Your task to perform on an android device: change the clock style Image 0: 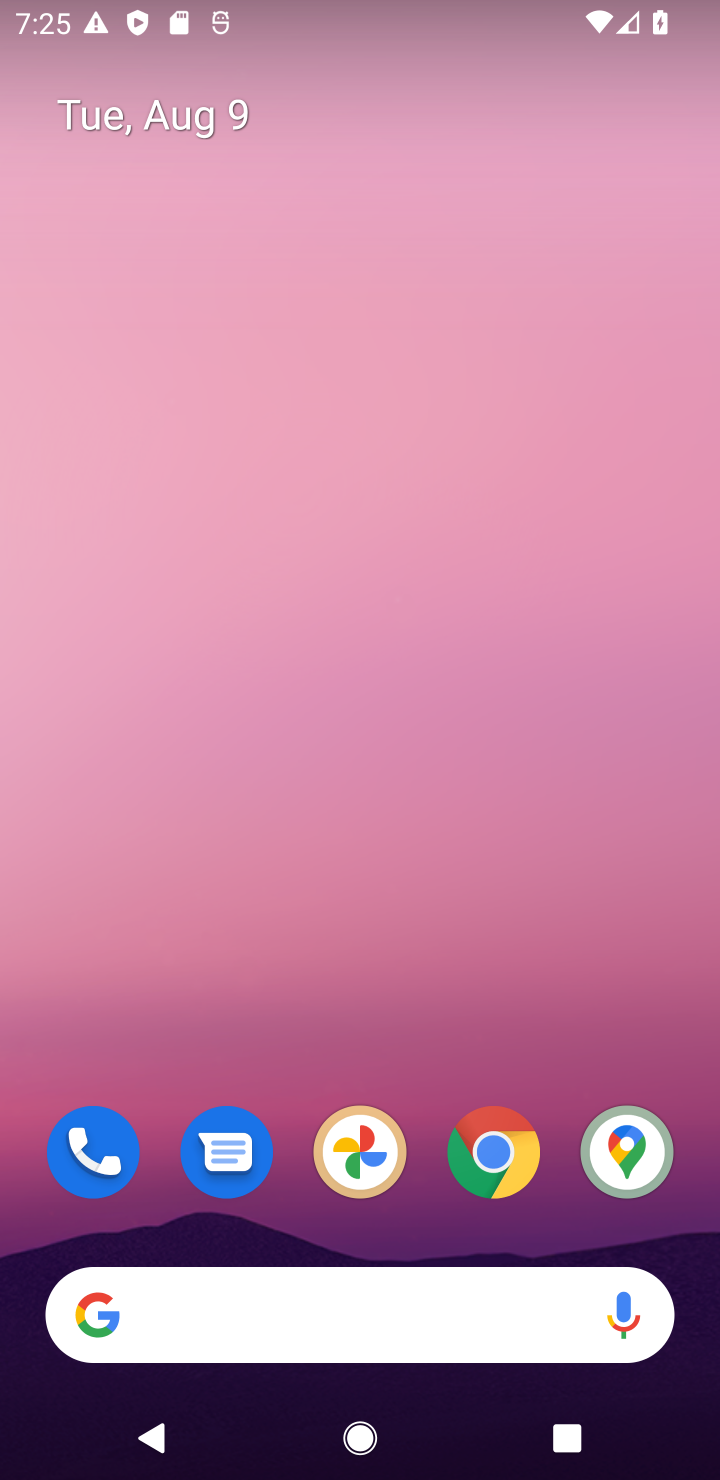
Step 0: drag from (394, 1028) to (288, 120)
Your task to perform on an android device: change the clock style Image 1: 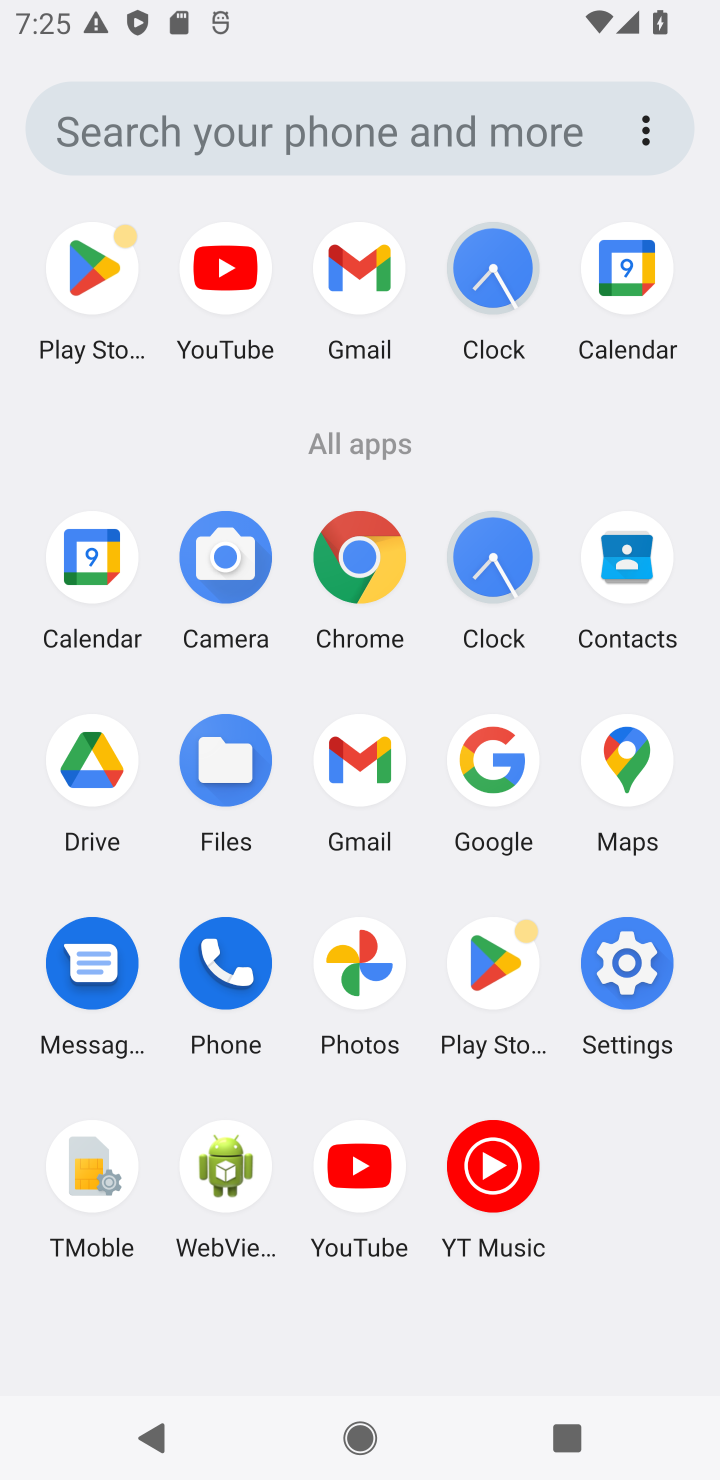
Step 1: click (447, 250)
Your task to perform on an android device: change the clock style Image 2: 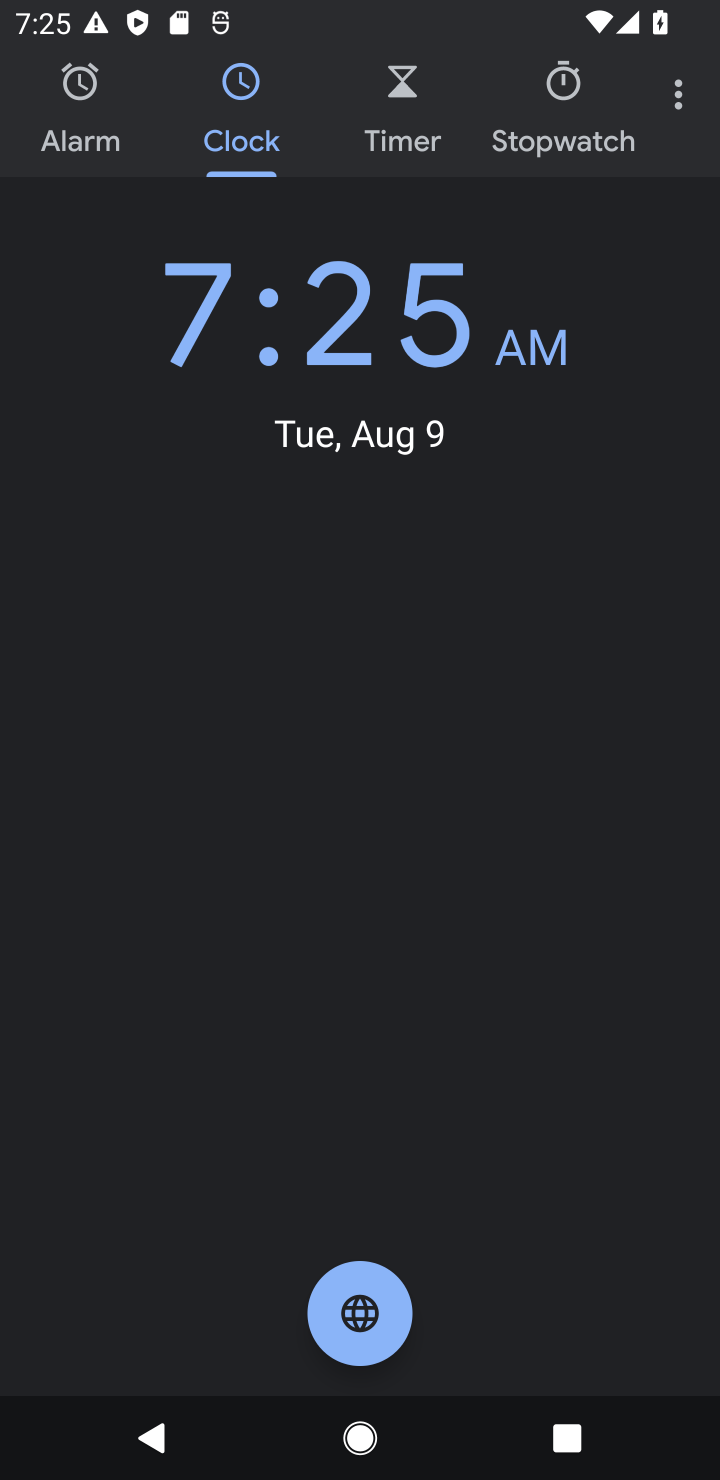
Step 2: click (695, 92)
Your task to perform on an android device: change the clock style Image 3: 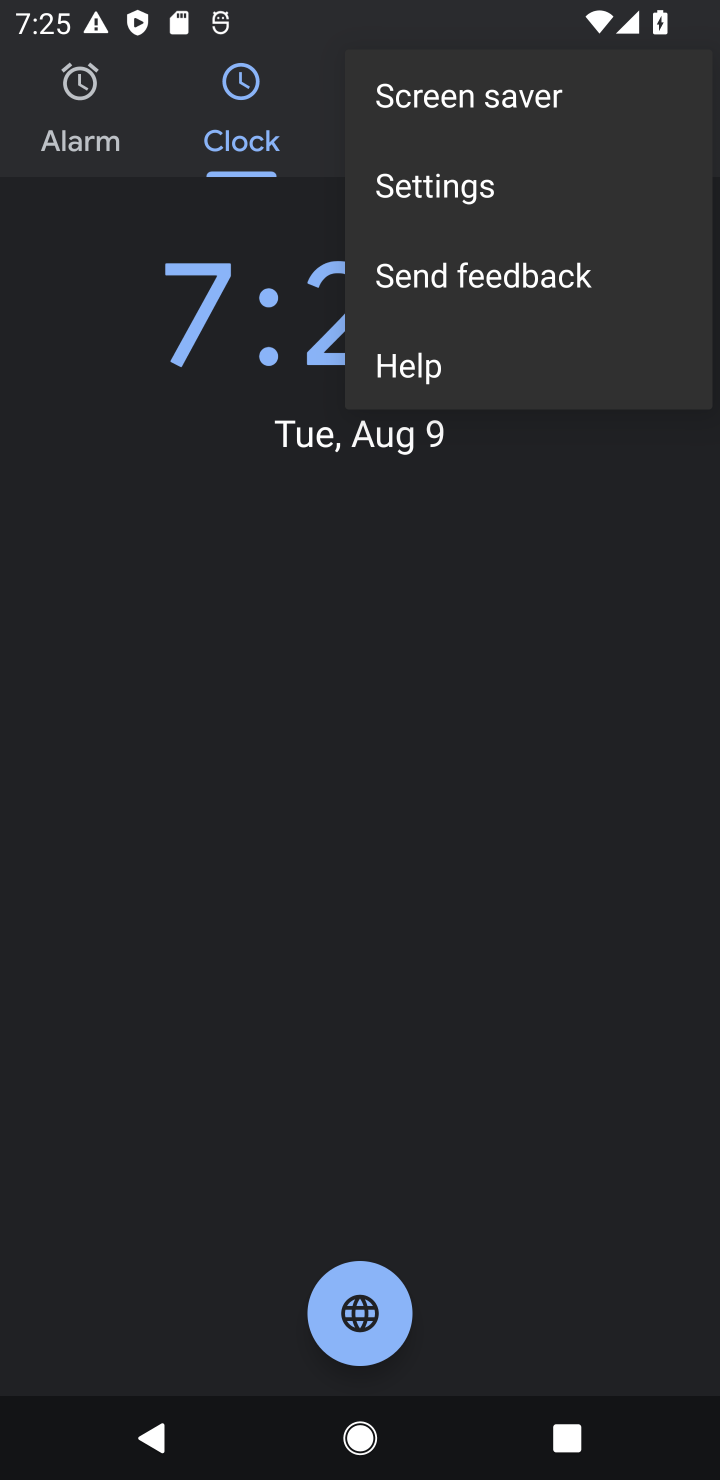
Step 3: click (468, 217)
Your task to perform on an android device: change the clock style Image 4: 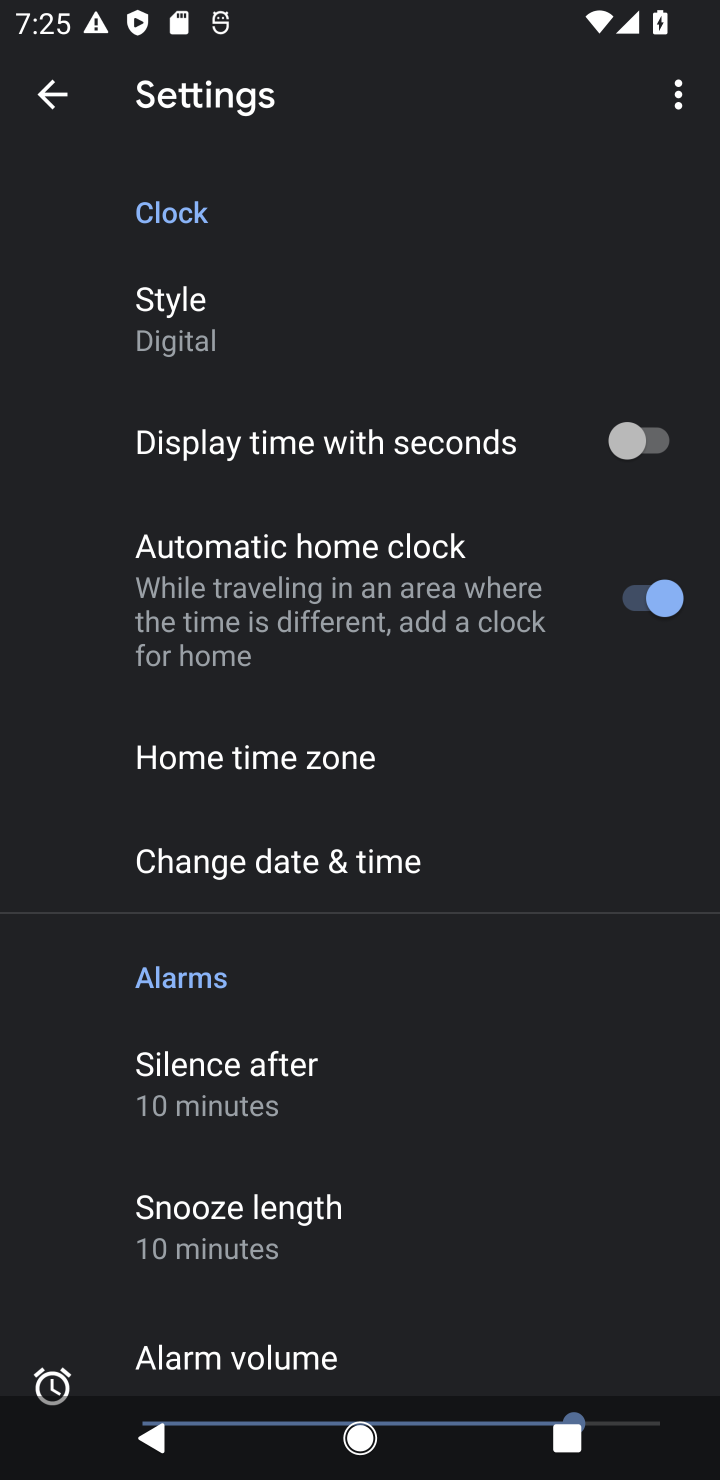
Step 4: click (221, 300)
Your task to perform on an android device: change the clock style Image 5: 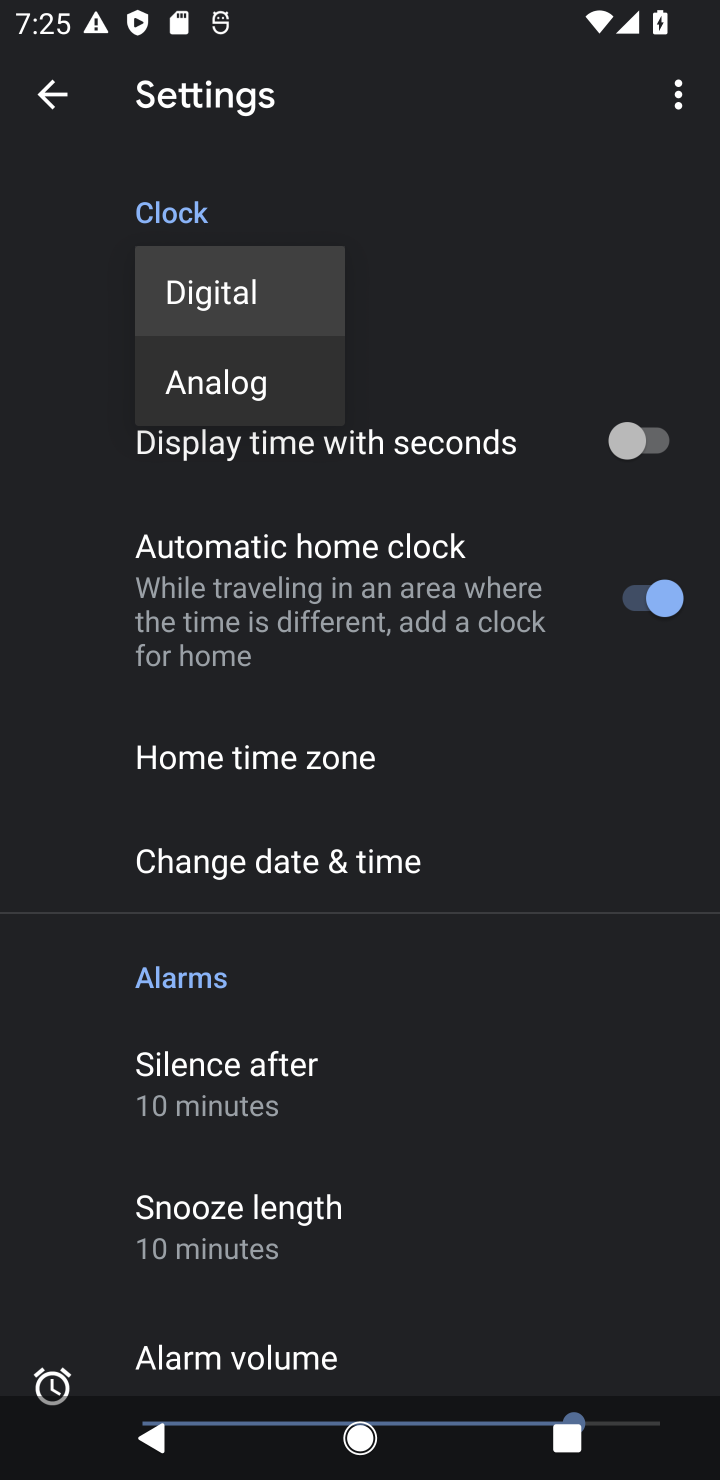
Step 5: click (284, 390)
Your task to perform on an android device: change the clock style Image 6: 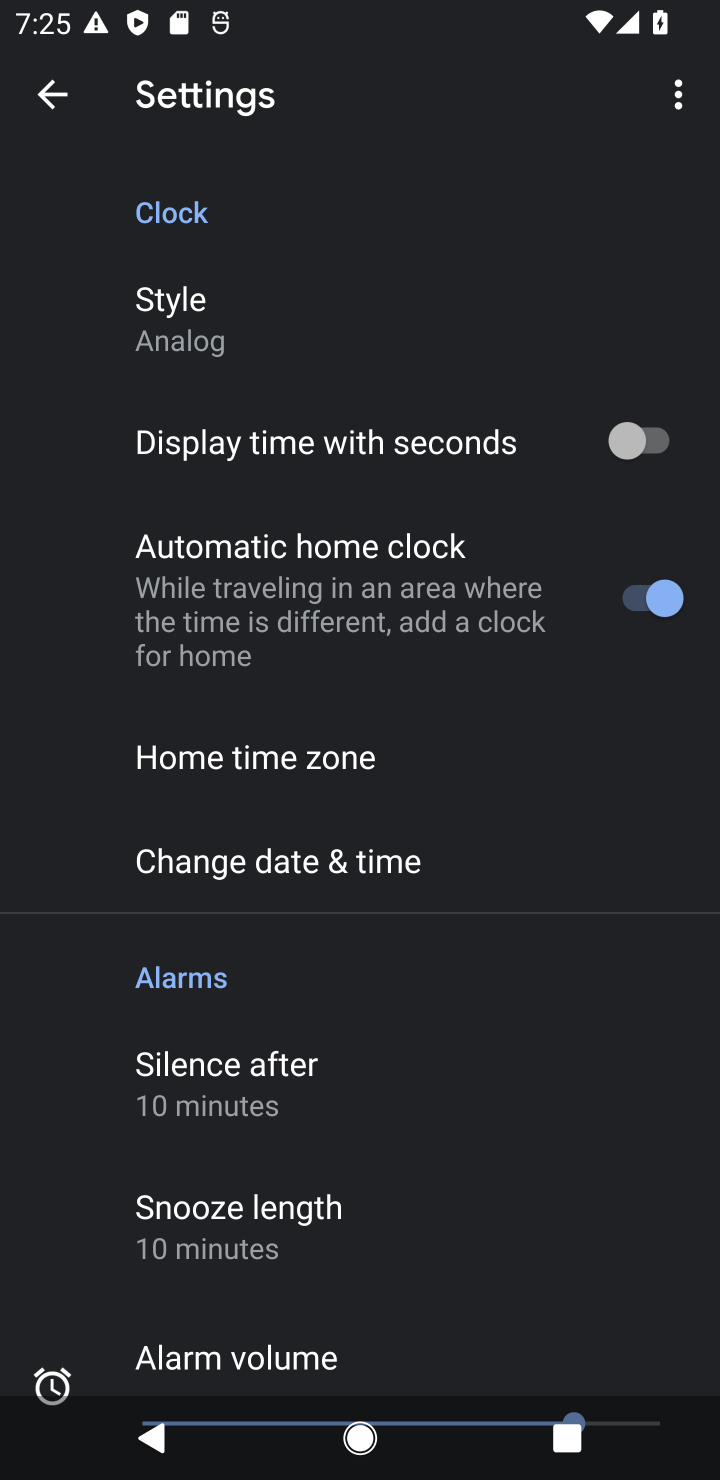
Step 6: task complete